Your task to perform on an android device: find which apps use the phone's location Image 0: 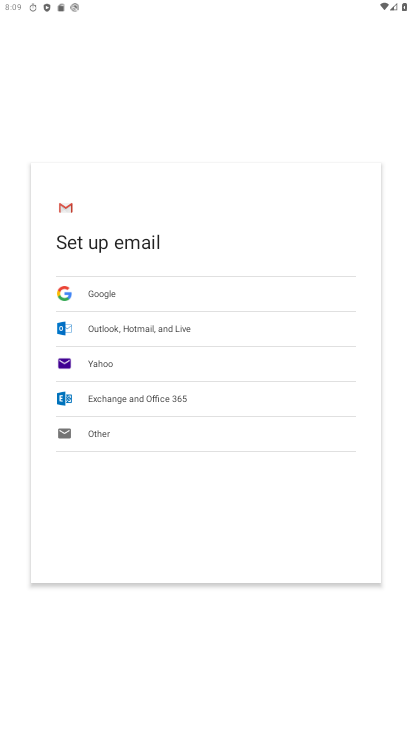
Step 0: press home button
Your task to perform on an android device: find which apps use the phone's location Image 1: 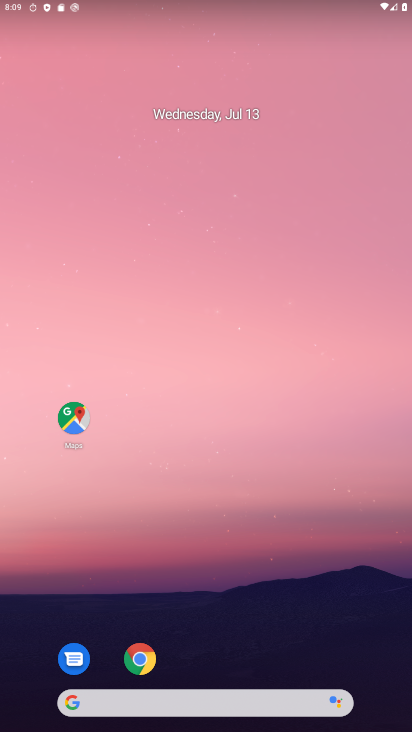
Step 1: drag from (270, 634) to (209, 193)
Your task to perform on an android device: find which apps use the phone's location Image 2: 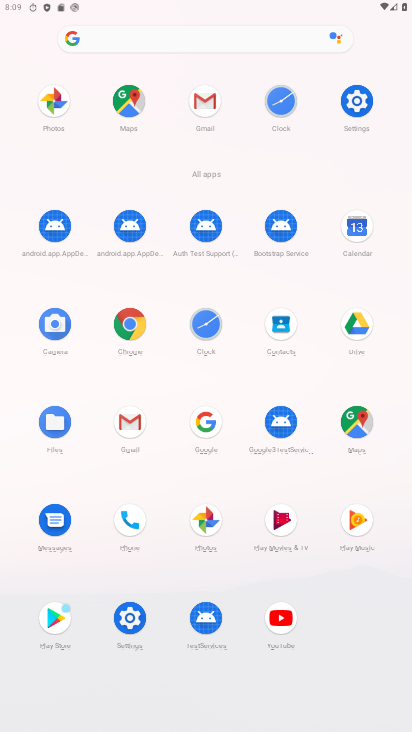
Step 2: click (130, 634)
Your task to perform on an android device: find which apps use the phone's location Image 3: 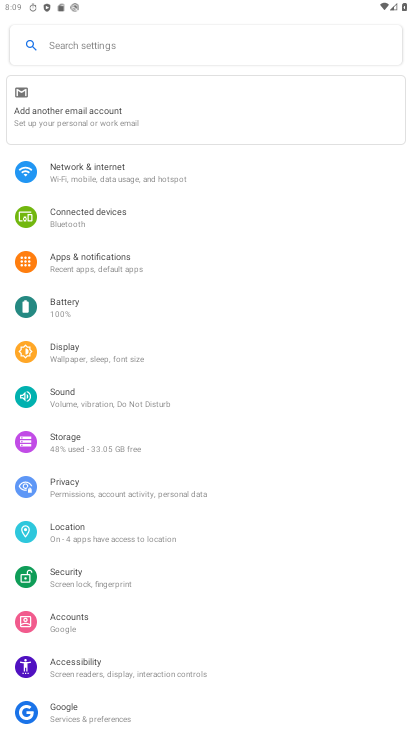
Step 3: click (141, 538)
Your task to perform on an android device: find which apps use the phone's location Image 4: 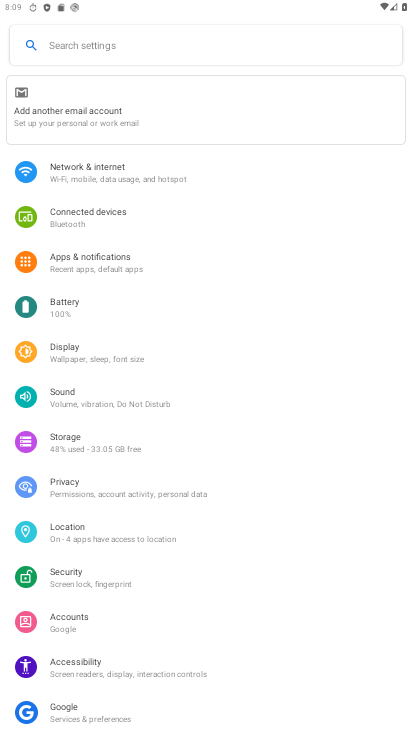
Step 4: click (141, 538)
Your task to perform on an android device: find which apps use the phone's location Image 5: 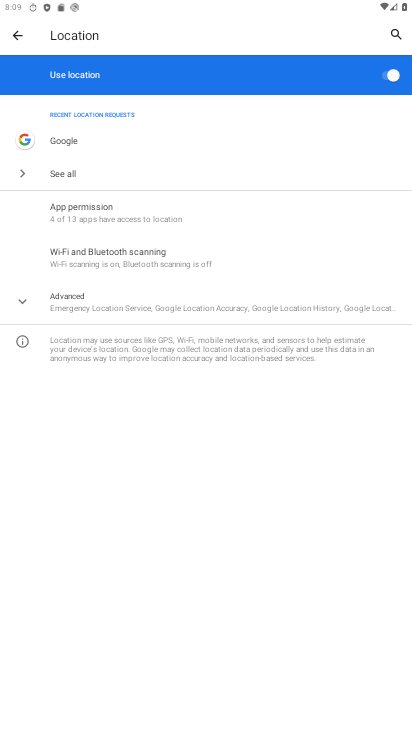
Step 5: click (105, 213)
Your task to perform on an android device: find which apps use the phone's location Image 6: 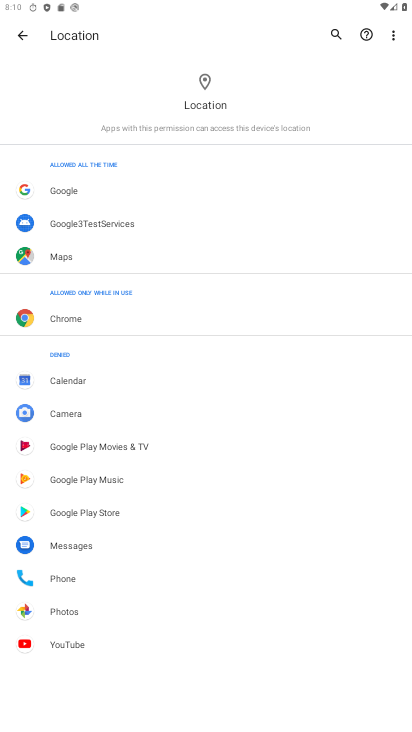
Step 6: task complete